Your task to perform on an android device: Open notification settings Image 0: 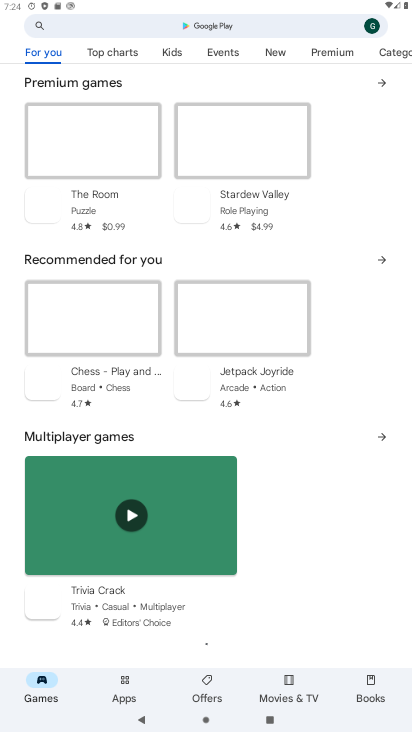
Step 0: press home button
Your task to perform on an android device: Open notification settings Image 1: 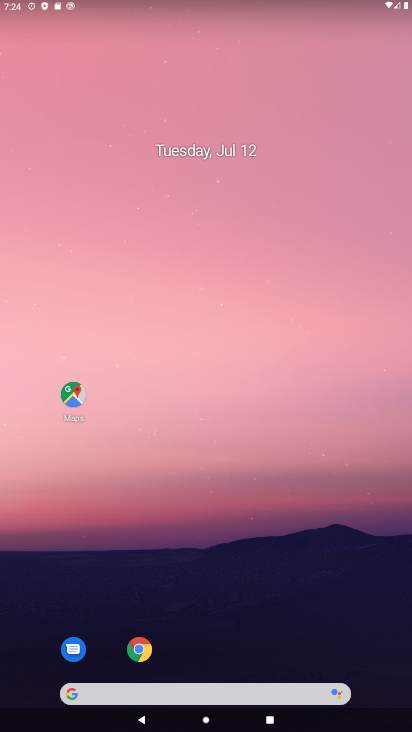
Step 1: drag from (212, 691) to (246, 171)
Your task to perform on an android device: Open notification settings Image 2: 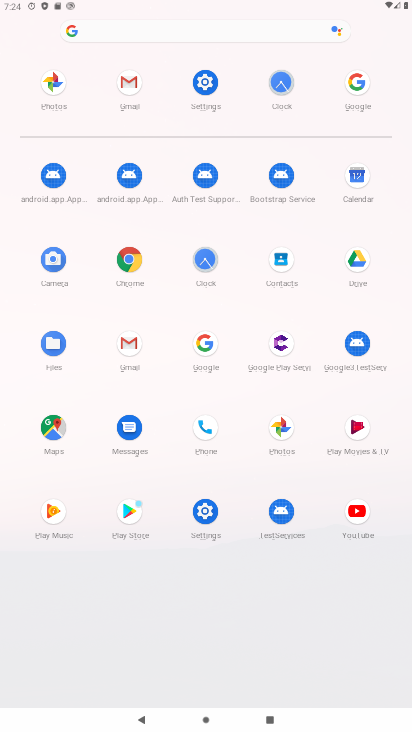
Step 2: click (204, 83)
Your task to perform on an android device: Open notification settings Image 3: 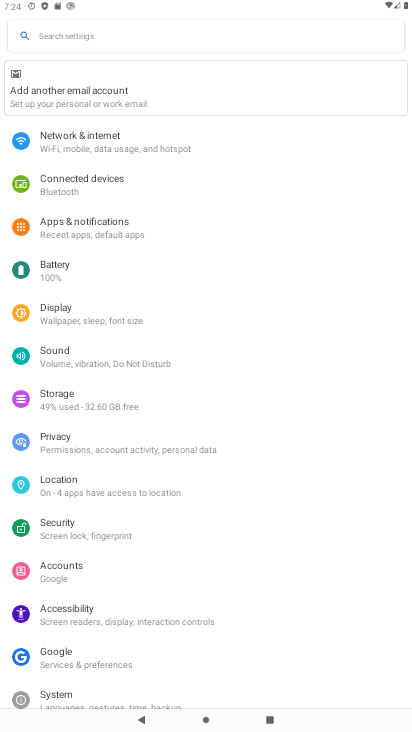
Step 3: click (84, 238)
Your task to perform on an android device: Open notification settings Image 4: 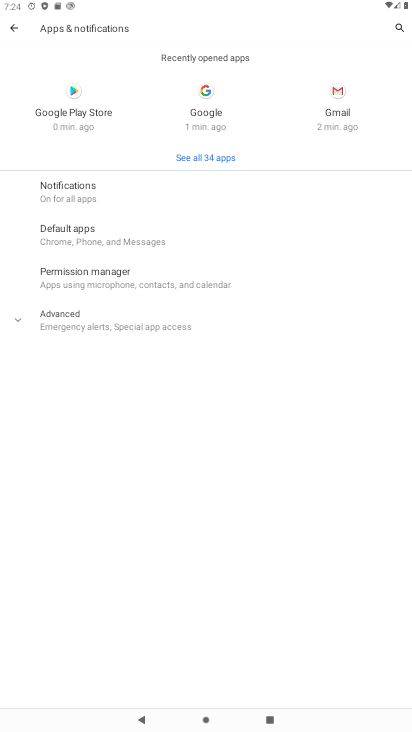
Step 4: click (77, 198)
Your task to perform on an android device: Open notification settings Image 5: 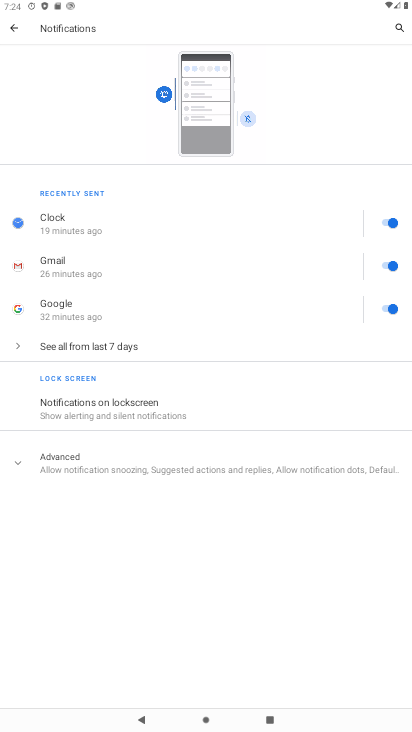
Step 5: task complete